Your task to perform on an android device: Go to Wikipedia Image 0: 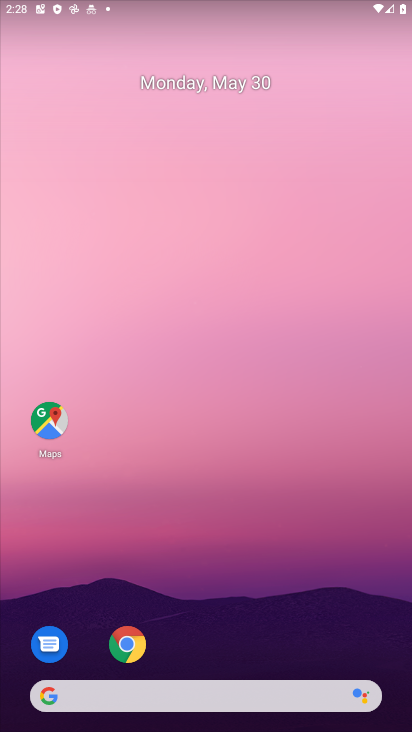
Step 0: drag from (315, 657) to (169, 21)
Your task to perform on an android device: Go to Wikipedia Image 1: 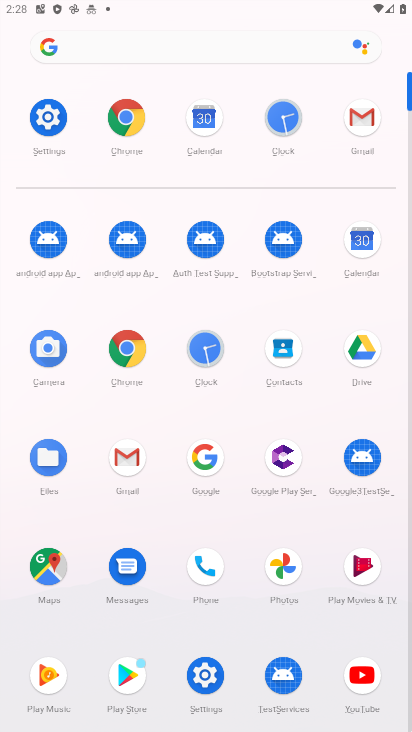
Step 1: click (37, 141)
Your task to perform on an android device: Go to Wikipedia Image 2: 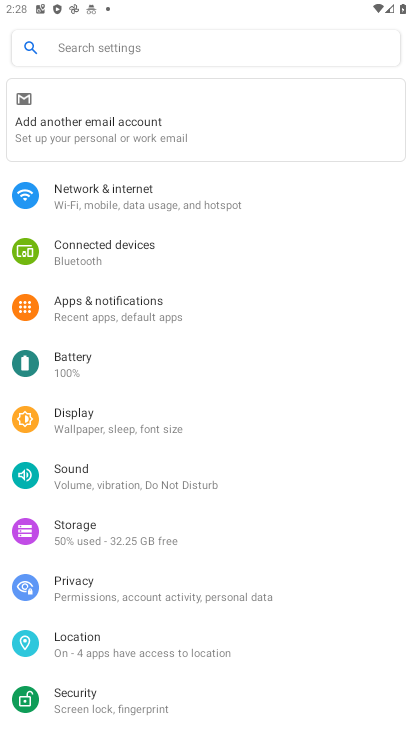
Step 2: press home button
Your task to perform on an android device: Go to Wikipedia Image 3: 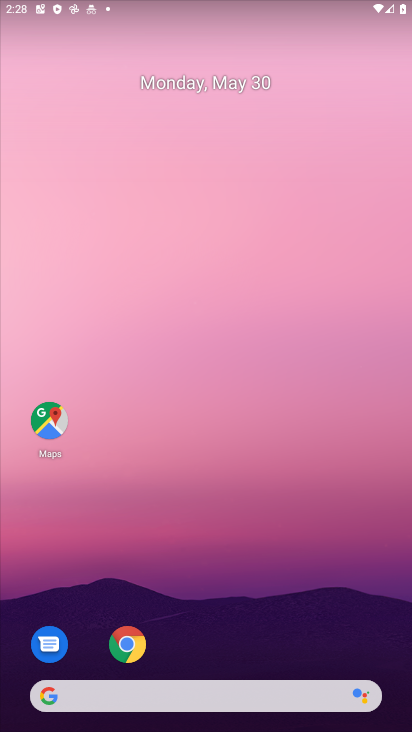
Step 3: click (246, 686)
Your task to perform on an android device: Go to Wikipedia Image 4: 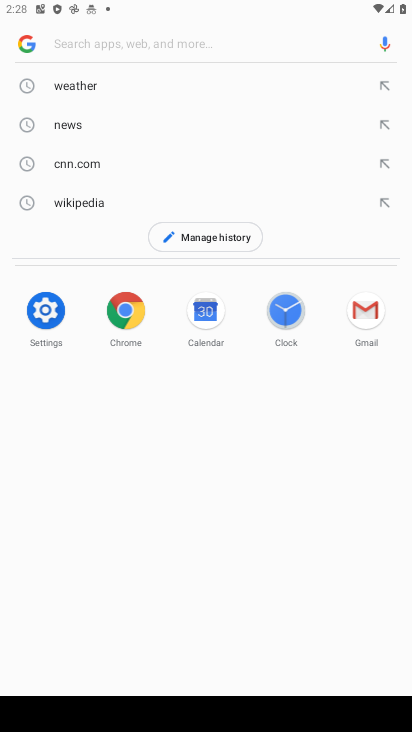
Step 4: click (176, 204)
Your task to perform on an android device: Go to Wikipedia Image 5: 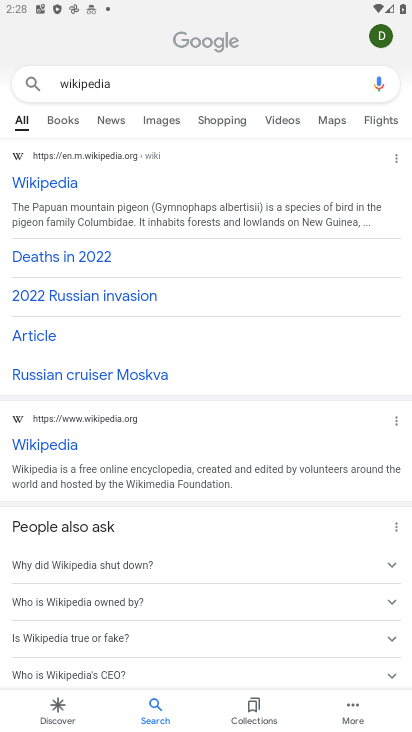
Step 5: click (50, 188)
Your task to perform on an android device: Go to Wikipedia Image 6: 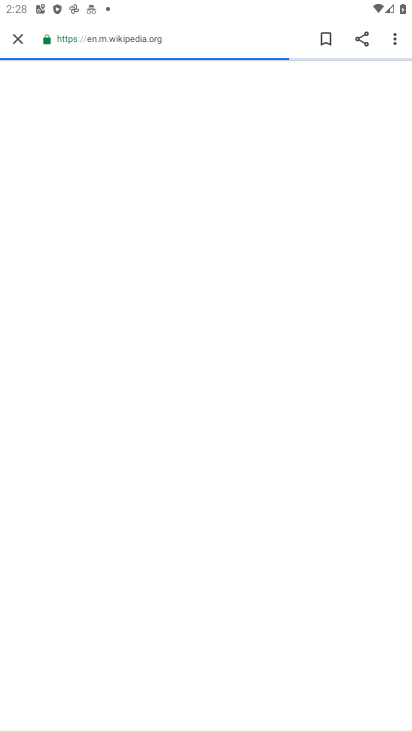
Step 6: task complete